Your task to perform on an android device: Open the calendar and show me this week's events? Image 0: 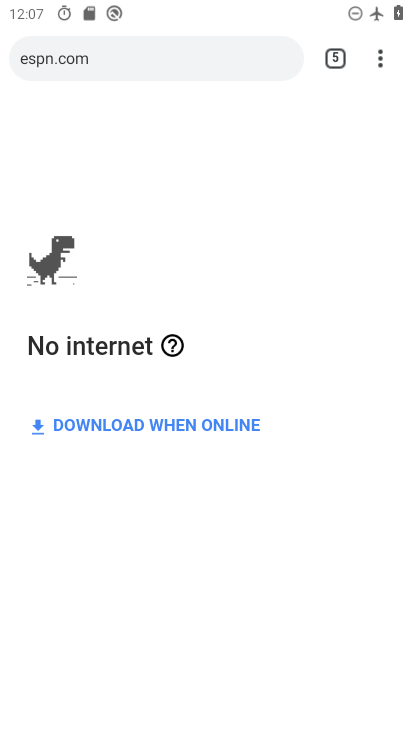
Step 0: press home button
Your task to perform on an android device: Open the calendar and show me this week's events? Image 1: 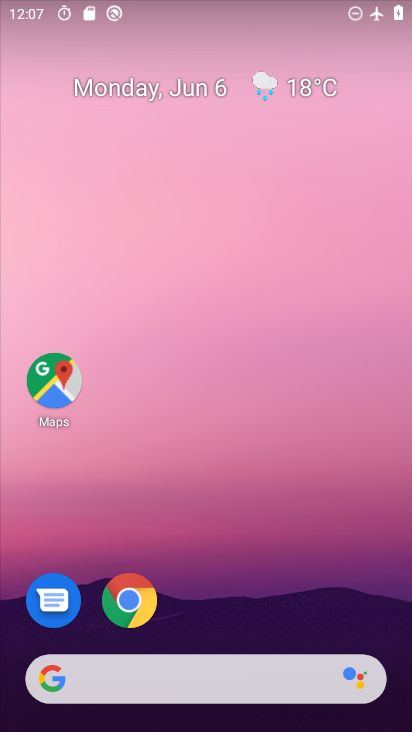
Step 1: drag from (241, 613) to (241, 211)
Your task to perform on an android device: Open the calendar and show me this week's events? Image 2: 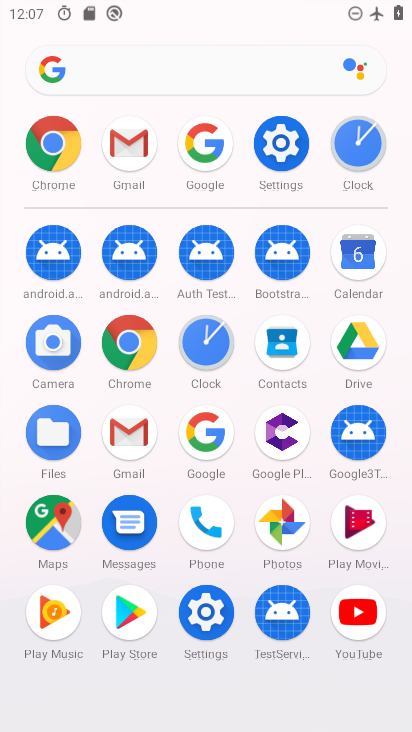
Step 2: click (353, 261)
Your task to perform on an android device: Open the calendar and show me this week's events? Image 3: 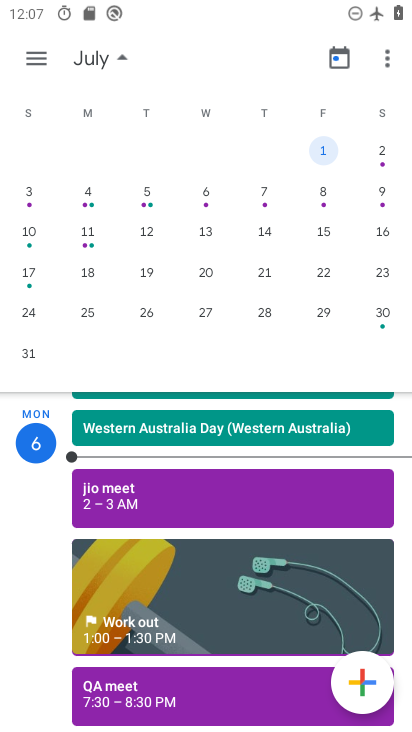
Step 3: click (356, 233)
Your task to perform on an android device: Open the calendar and show me this week's events? Image 4: 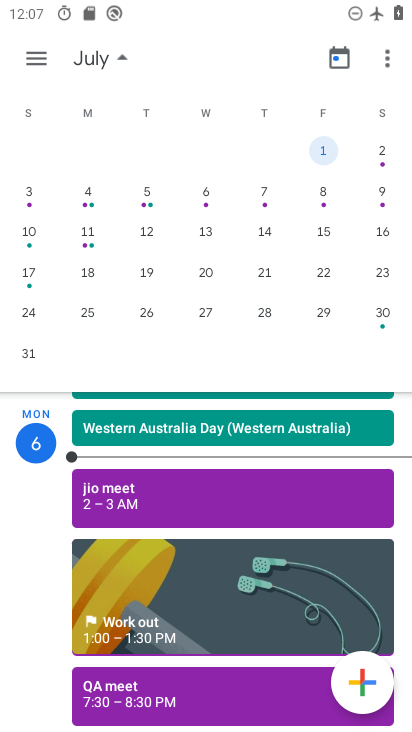
Step 4: drag from (62, 246) to (374, 254)
Your task to perform on an android device: Open the calendar and show me this week's events? Image 5: 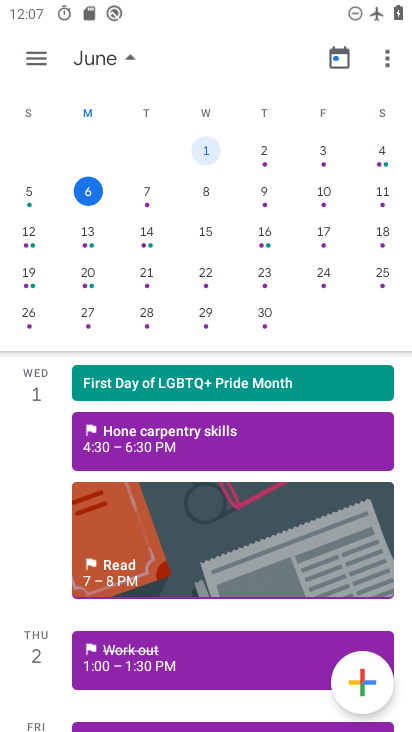
Step 5: click (146, 182)
Your task to perform on an android device: Open the calendar and show me this week's events? Image 6: 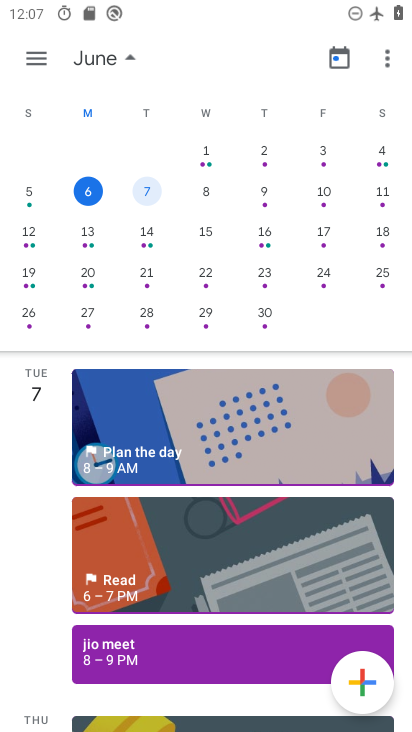
Step 6: task complete